Your task to perform on an android device: Add "lenovo thinkpad" to the cart on walmart.com Image 0: 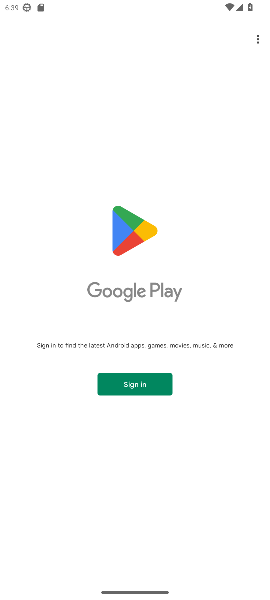
Step 0: press home button
Your task to perform on an android device: Add "lenovo thinkpad" to the cart on walmart.com Image 1: 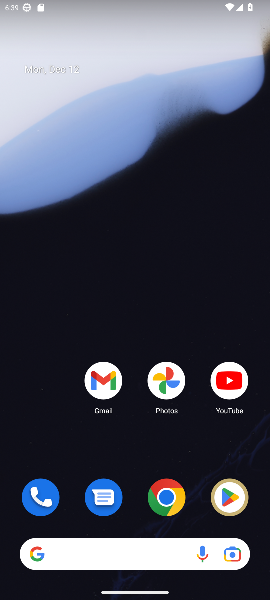
Step 1: drag from (53, 442) to (36, 43)
Your task to perform on an android device: Add "lenovo thinkpad" to the cart on walmart.com Image 2: 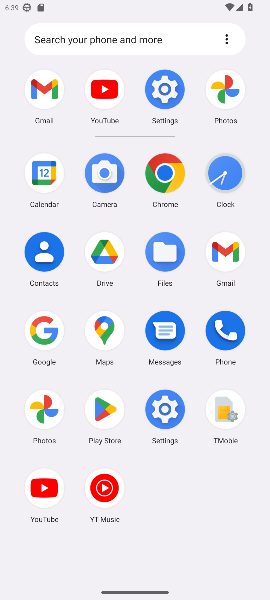
Step 2: click (38, 325)
Your task to perform on an android device: Add "lenovo thinkpad" to the cart on walmart.com Image 3: 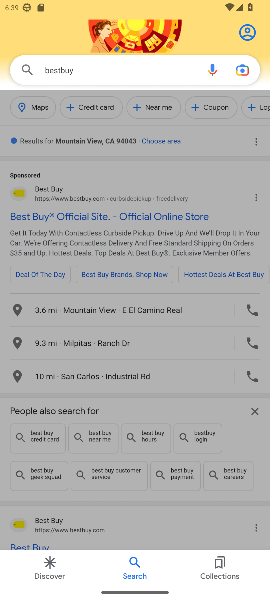
Step 3: click (106, 65)
Your task to perform on an android device: Add "lenovo thinkpad" to the cart on walmart.com Image 4: 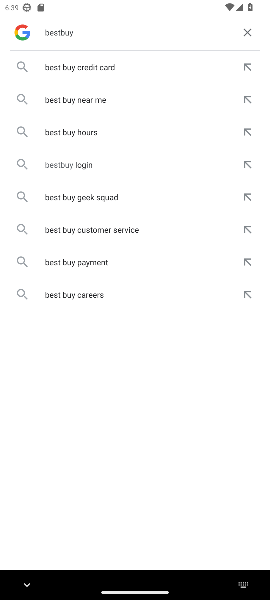
Step 4: click (247, 31)
Your task to perform on an android device: Add "lenovo thinkpad" to the cart on walmart.com Image 5: 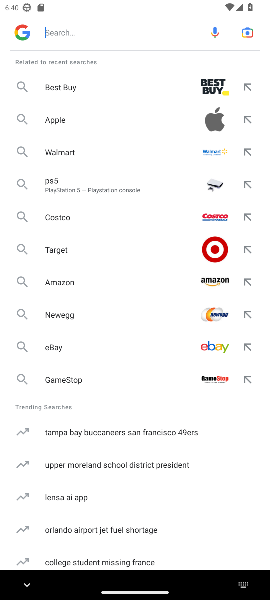
Step 5: type "walmart.com"
Your task to perform on an android device: Add "lenovo thinkpad" to the cart on walmart.com Image 6: 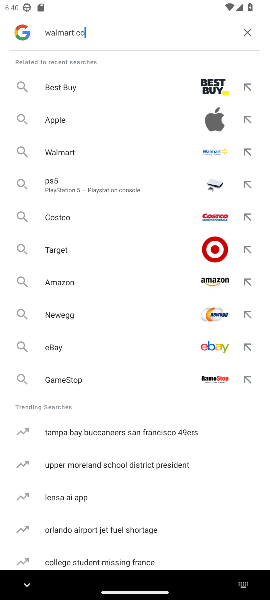
Step 6: press enter
Your task to perform on an android device: Add "lenovo thinkpad" to the cart on walmart.com Image 7: 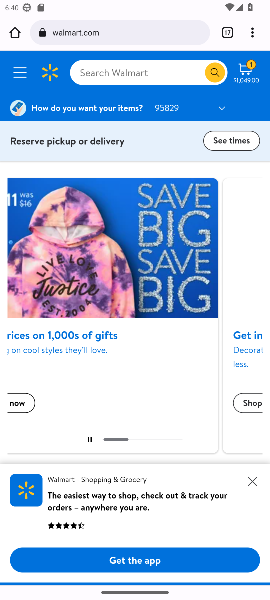
Step 7: click (95, 68)
Your task to perform on an android device: Add "lenovo thinkpad" to the cart on walmart.com Image 8: 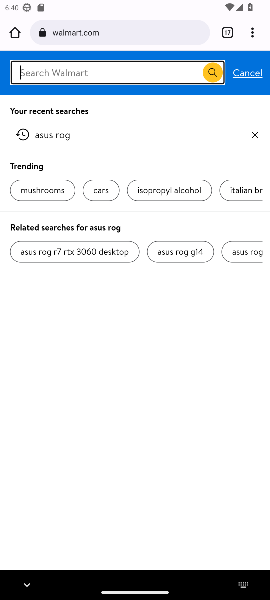
Step 8: type "lenovo thinkpad"
Your task to perform on an android device: Add "lenovo thinkpad" to the cart on walmart.com Image 9: 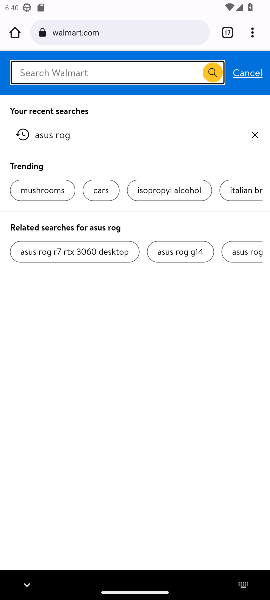
Step 9: press enter
Your task to perform on an android device: Add "lenovo thinkpad" to the cart on walmart.com Image 10: 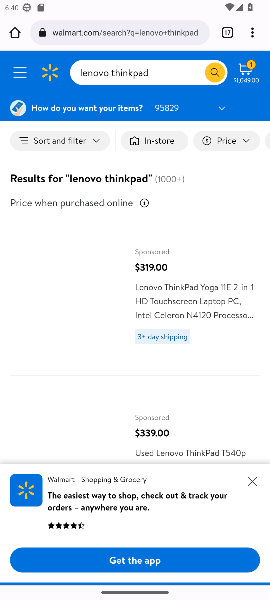
Step 10: click (176, 287)
Your task to perform on an android device: Add "lenovo thinkpad" to the cart on walmart.com Image 11: 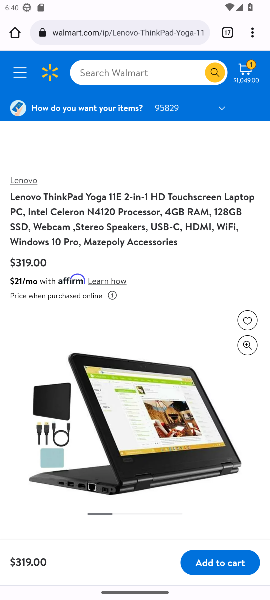
Step 11: click (207, 567)
Your task to perform on an android device: Add "lenovo thinkpad" to the cart on walmart.com Image 12: 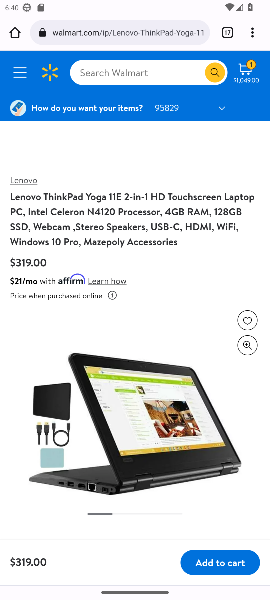
Step 12: click (220, 564)
Your task to perform on an android device: Add "lenovo thinkpad" to the cart on walmart.com Image 13: 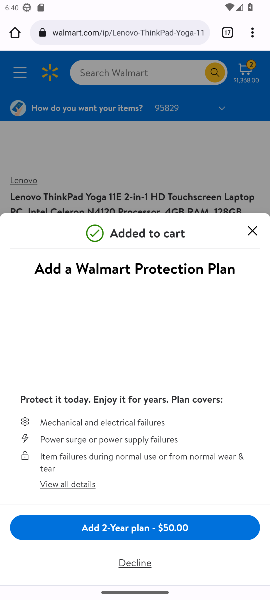
Step 13: task complete